Your task to perform on an android device: What's the weather going to be this weekend? Image 0: 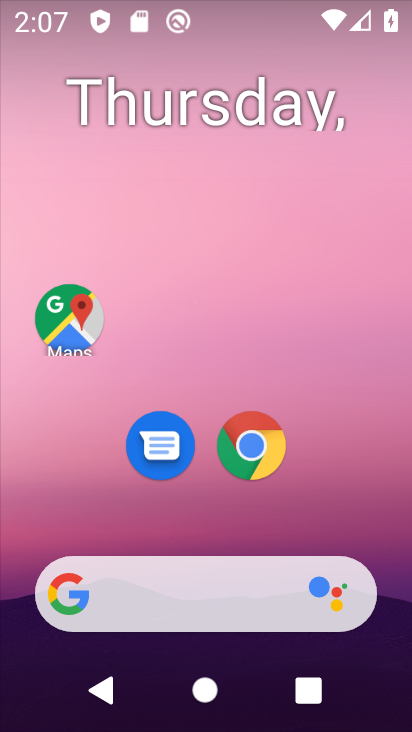
Step 0: click (158, 600)
Your task to perform on an android device: What's the weather going to be this weekend? Image 1: 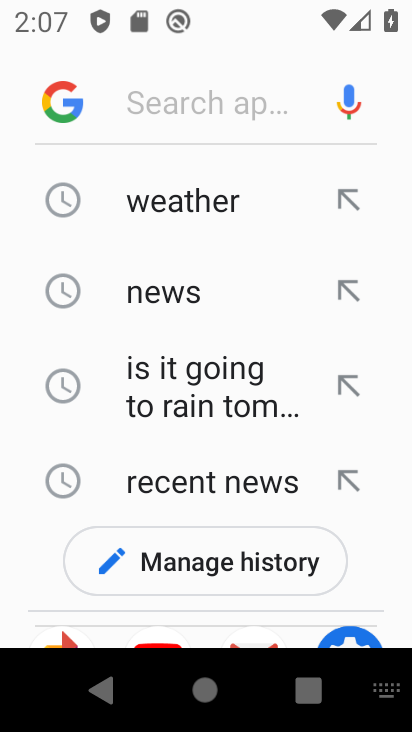
Step 1: click (184, 210)
Your task to perform on an android device: What's the weather going to be this weekend? Image 2: 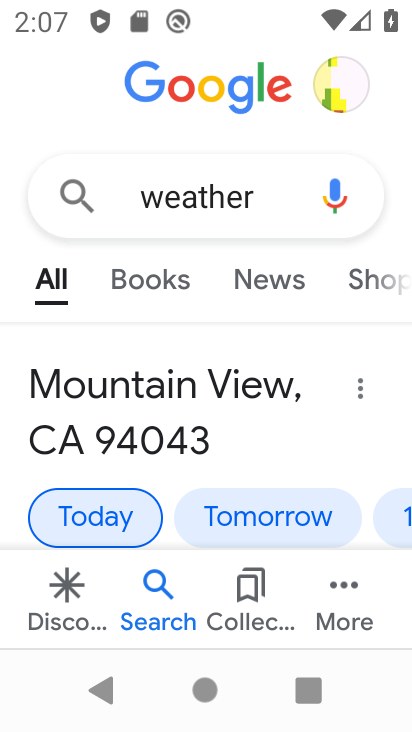
Step 2: task complete